Your task to perform on an android device: Open the stopwatch Image 0: 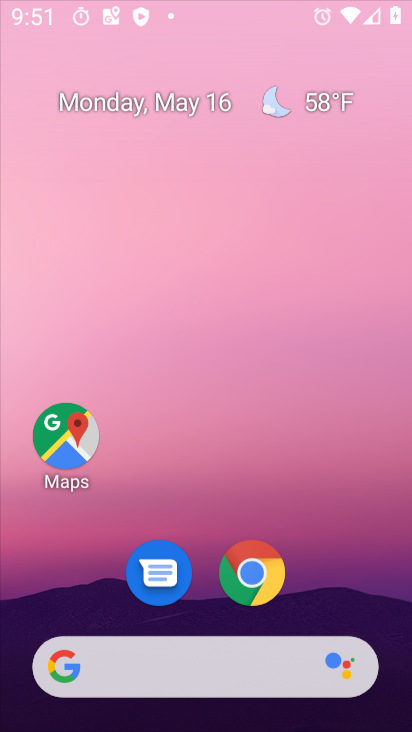
Step 0: drag from (334, 421) to (217, 4)
Your task to perform on an android device: Open the stopwatch Image 1: 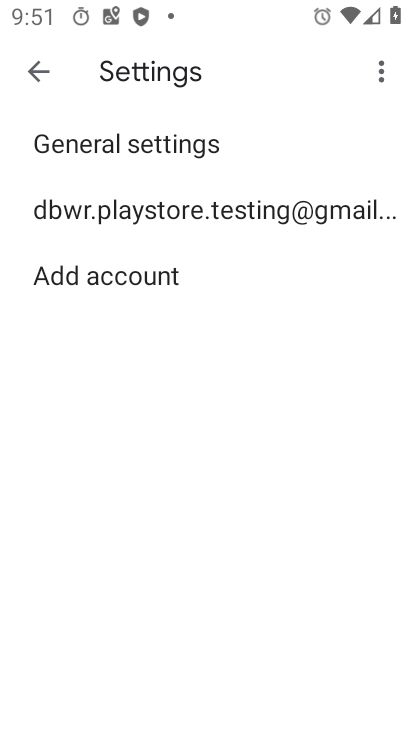
Step 1: click (46, 67)
Your task to perform on an android device: Open the stopwatch Image 2: 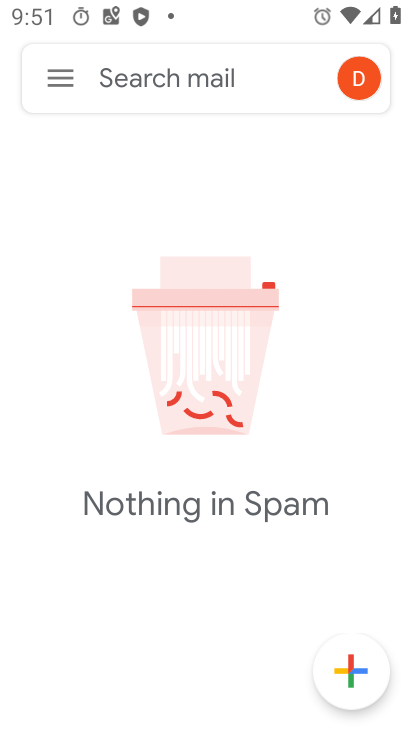
Step 2: press back button
Your task to perform on an android device: Open the stopwatch Image 3: 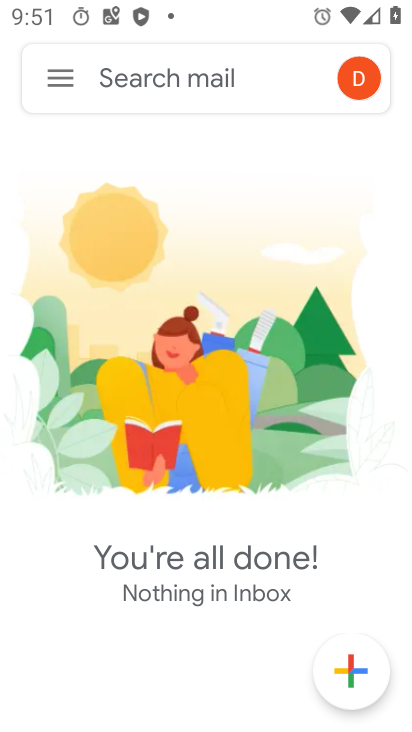
Step 3: press home button
Your task to perform on an android device: Open the stopwatch Image 4: 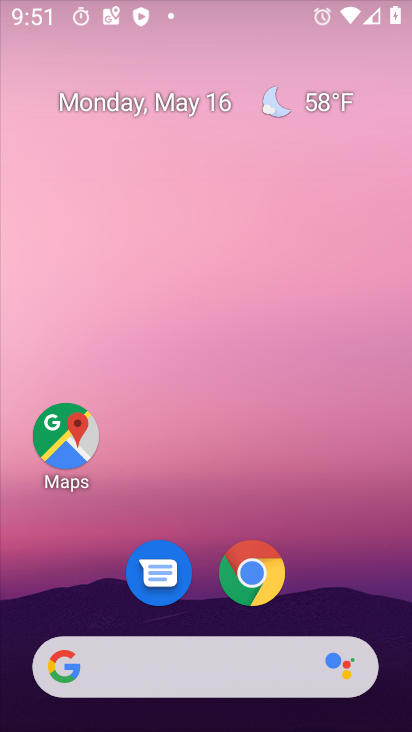
Step 4: click (198, 66)
Your task to perform on an android device: Open the stopwatch Image 5: 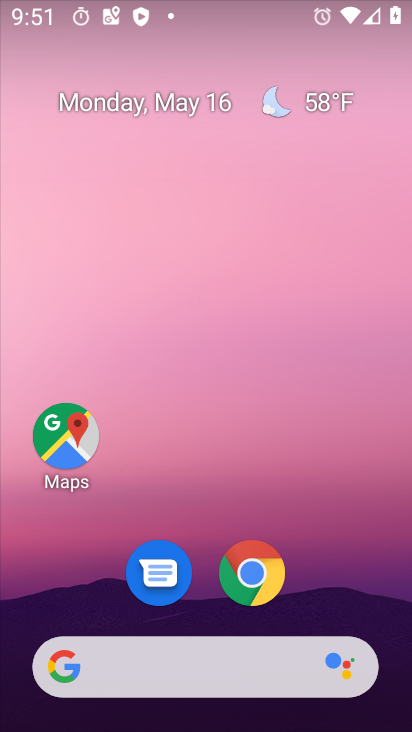
Step 5: drag from (239, 595) to (177, 22)
Your task to perform on an android device: Open the stopwatch Image 6: 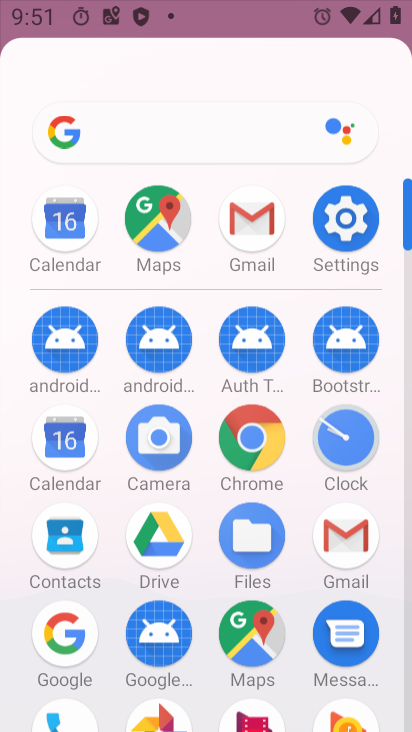
Step 6: drag from (314, 419) to (286, 20)
Your task to perform on an android device: Open the stopwatch Image 7: 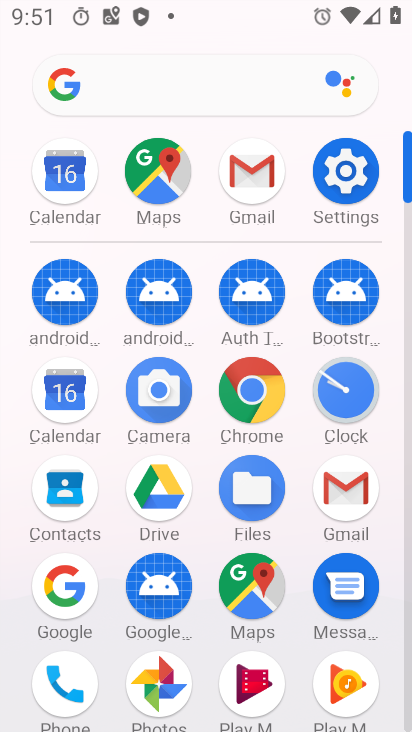
Step 7: click (359, 384)
Your task to perform on an android device: Open the stopwatch Image 8: 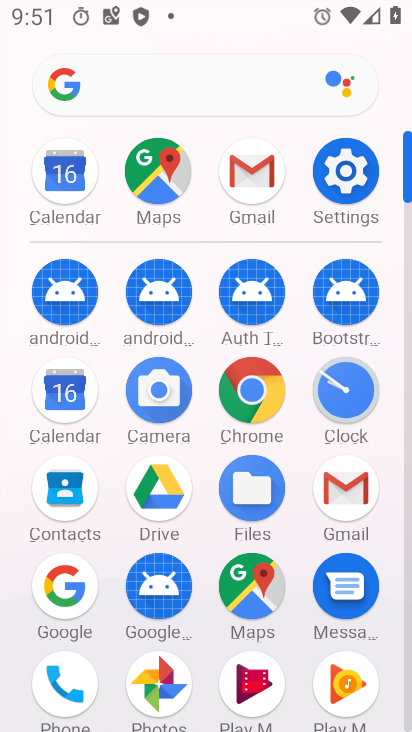
Step 8: click (362, 383)
Your task to perform on an android device: Open the stopwatch Image 9: 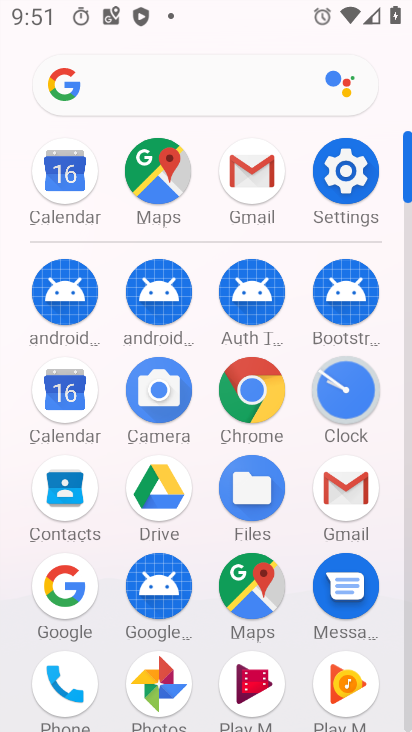
Step 9: click (362, 383)
Your task to perform on an android device: Open the stopwatch Image 10: 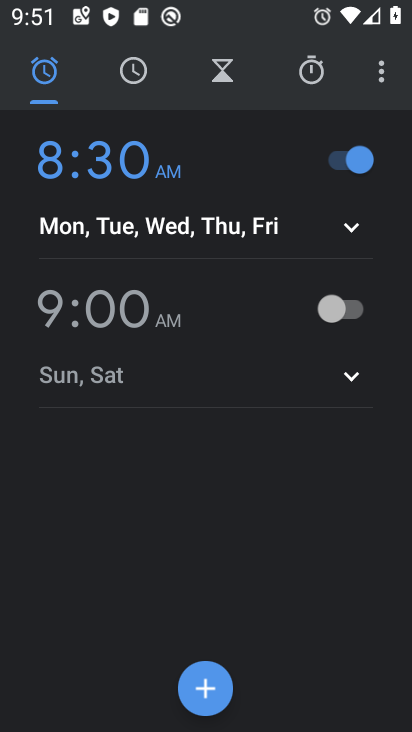
Step 10: click (306, 78)
Your task to perform on an android device: Open the stopwatch Image 11: 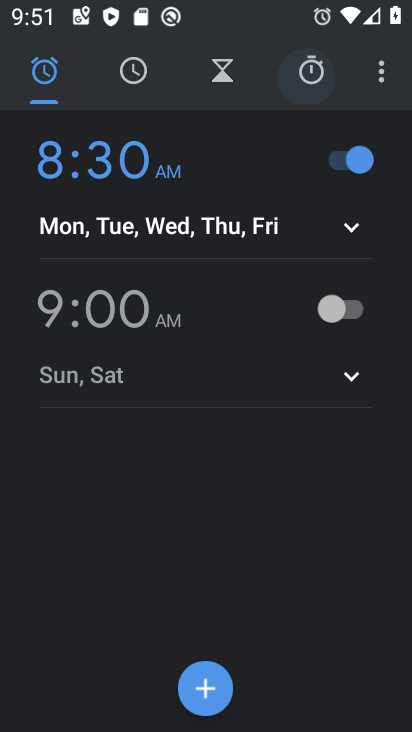
Step 11: click (306, 78)
Your task to perform on an android device: Open the stopwatch Image 12: 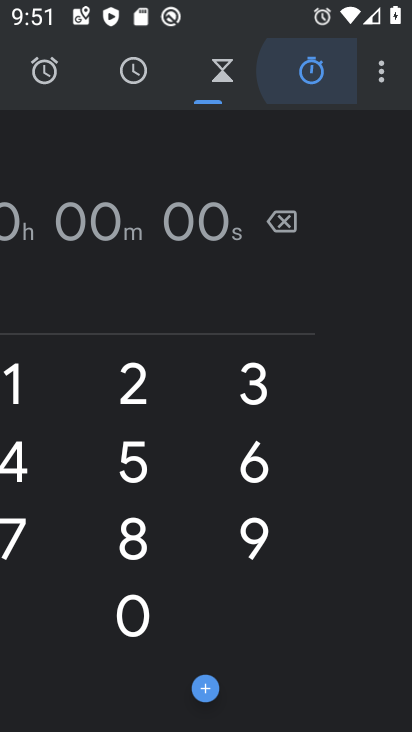
Step 12: click (306, 78)
Your task to perform on an android device: Open the stopwatch Image 13: 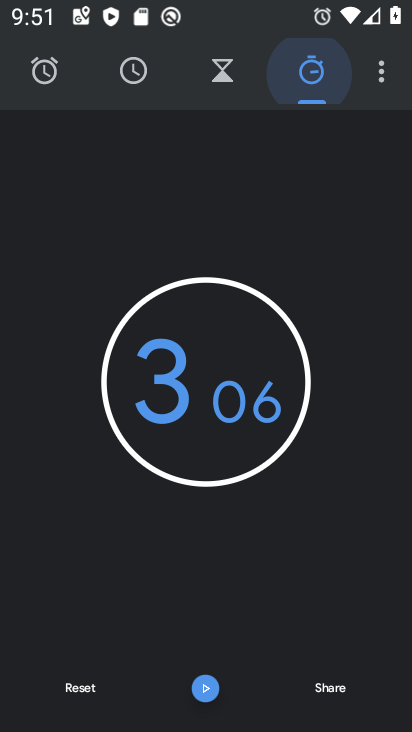
Step 13: click (306, 78)
Your task to perform on an android device: Open the stopwatch Image 14: 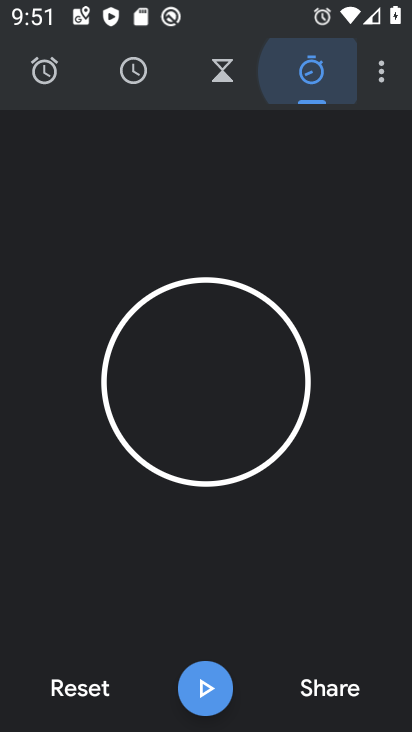
Step 14: click (306, 78)
Your task to perform on an android device: Open the stopwatch Image 15: 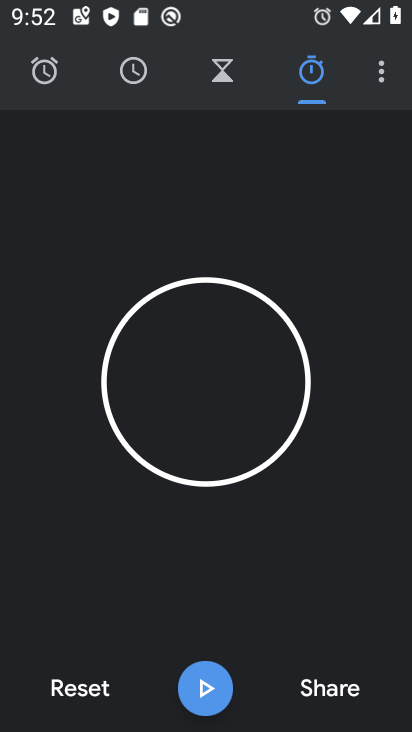
Step 15: task complete